Your task to perform on an android device: turn off javascript in the chrome app Image 0: 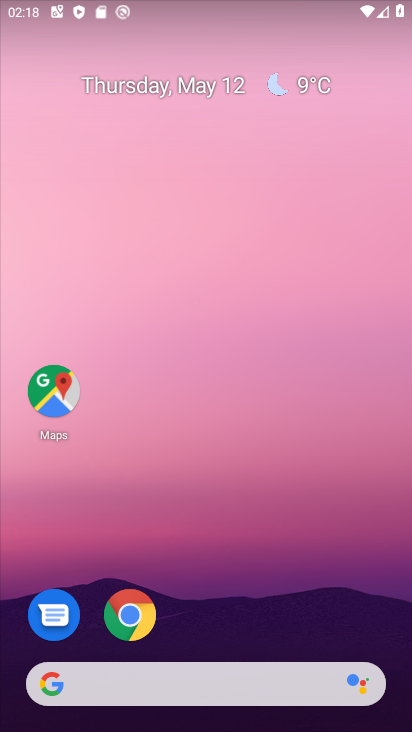
Step 0: click (125, 632)
Your task to perform on an android device: turn off javascript in the chrome app Image 1: 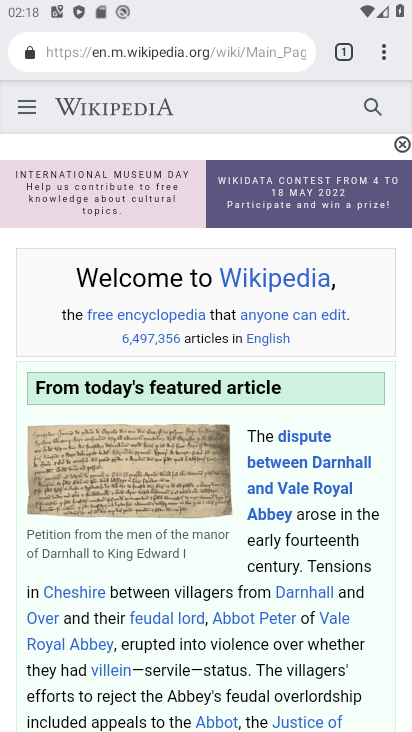
Step 1: drag from (393, 53) to (192, 631)
Your task to perform on an android device: turn off javascript in the chrome app Image 2: 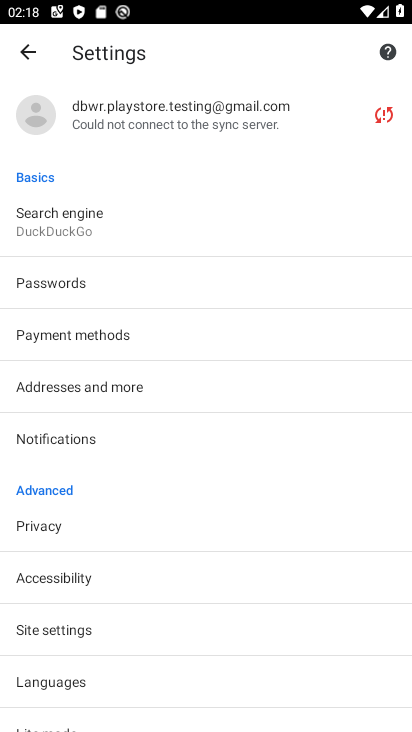
Step 2: click (110, 642)
Your task to perform on an android device: turn off javascript in the chrome app Image 3: 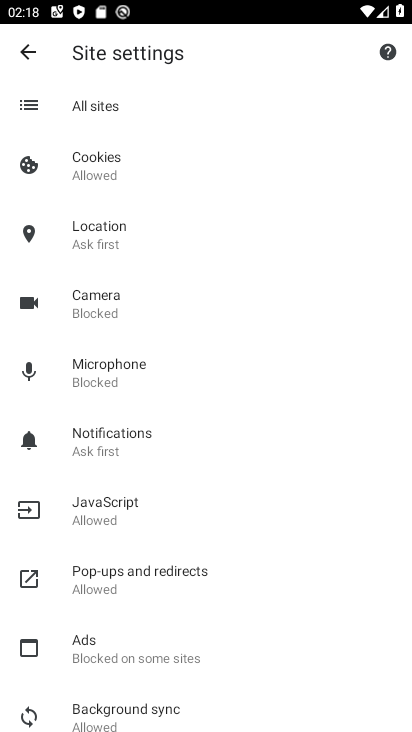
Step 3: click (149, 499)
Your task to perform on an android device: turn off javascript in the chrome app Image 4: 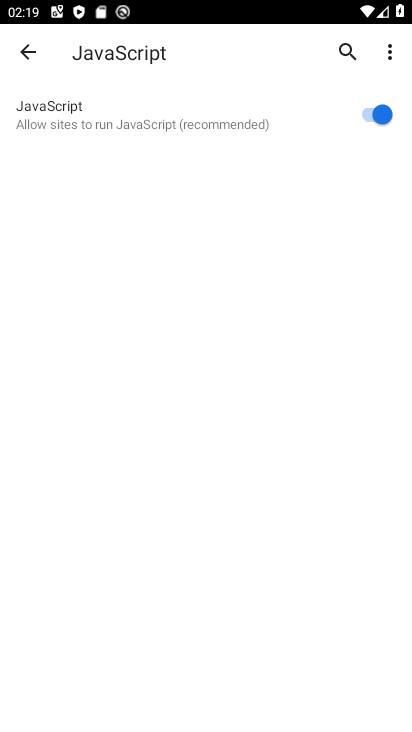
Step 4: click (366, 111)
Your task to perform on an android device: turn off javascript in the chrome app Image 5: 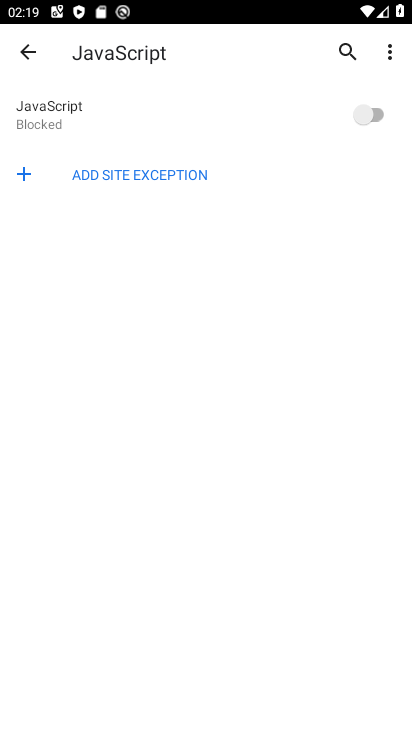
Step 5: task complete